Your task to perform on an android device: turn notification dots off Image 0: 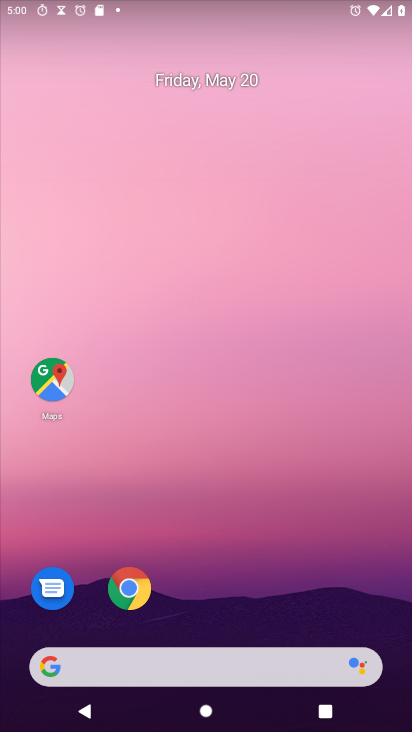
Step 0: drag from (301, 592) to (254, 221)
Your task to perform on an android device: turn notification dots off Image 1: 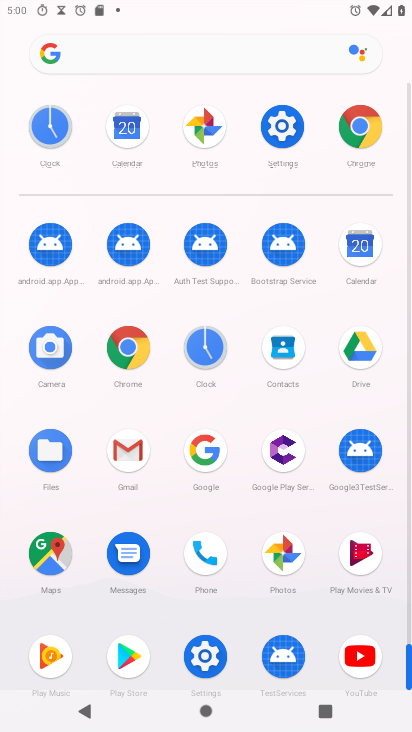
Step 1: click (221, 663)
Your task to perform on an android device: turn notification dots off Image 2: 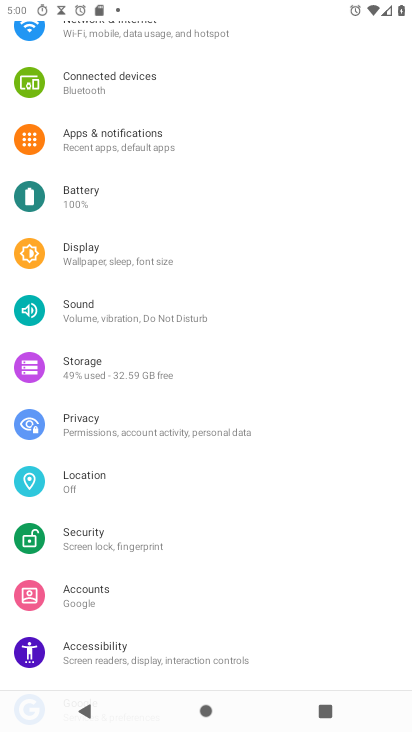
Step 2: click (129, 142)
Your task to perform on an android device: turn notification dots off Image 3: 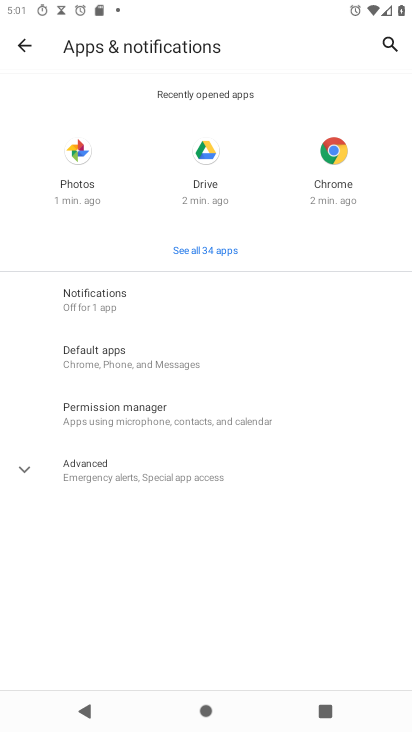
Step 3: click (69, 292)
Your task to perform on an android device: turn notification dots off Image 4: 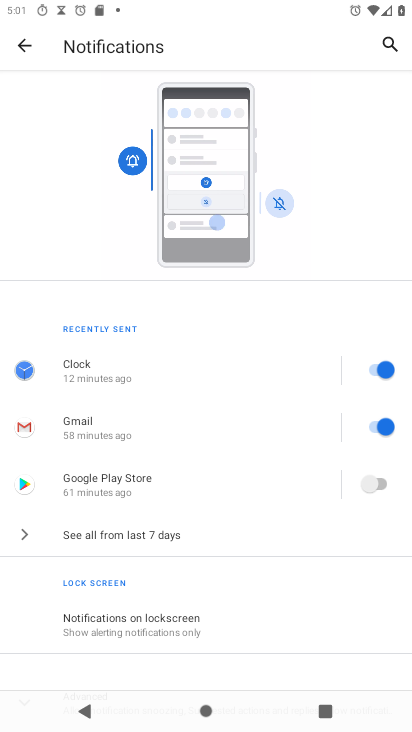
Step 4: drag from (237, 518) to (299, 177)
Your task to perform on an android device: turn notification dots off Image 5: 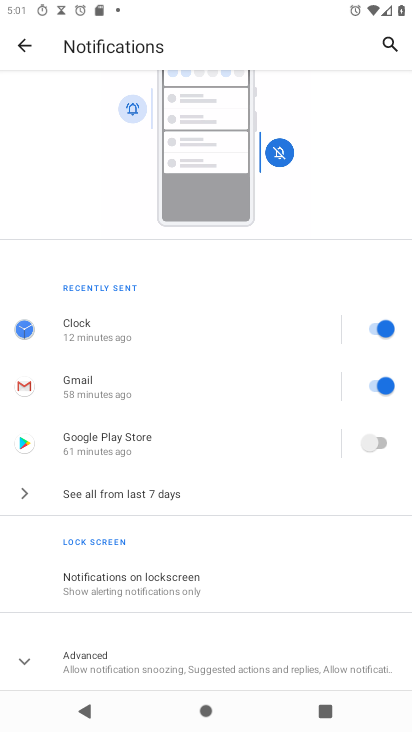
Step 5: click (100, 658)
Your task to perform on an android device: turn notification dots off Image 6: 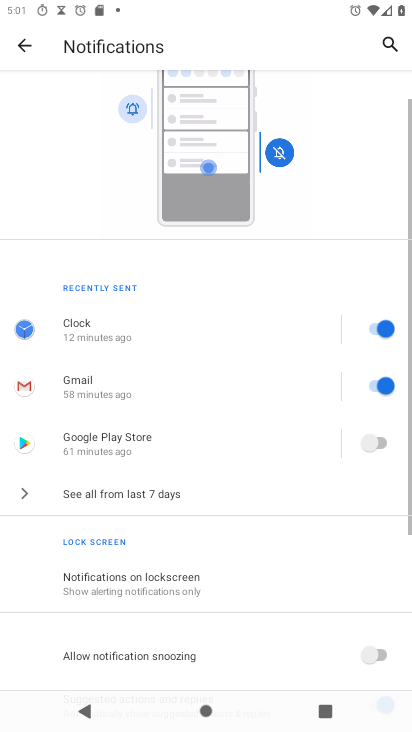
Step 6: drag from (213, 604) to (271, 340)
Your task to perform on an android device: turn notification dots off Image 7: 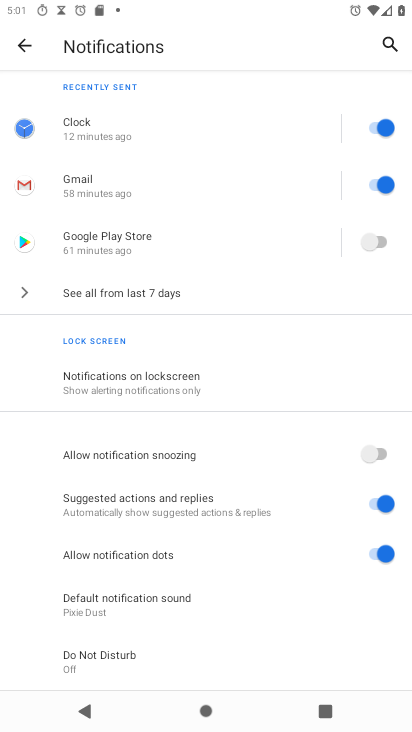
Step 7: click (377, 544)
Your task to perform on an android device: turn notification dots off Image 8: 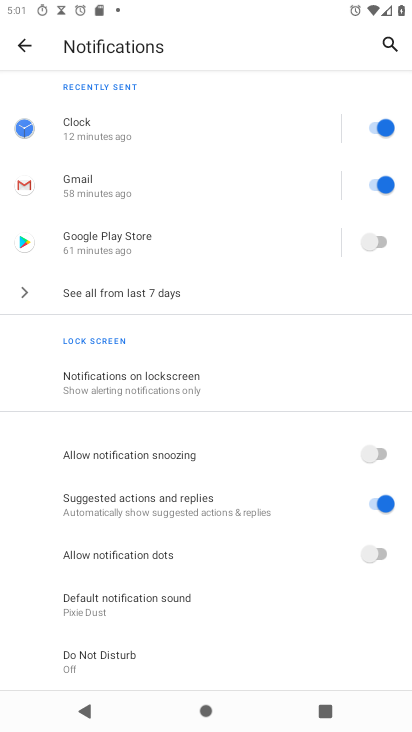
Step 8: task complete